Your task to perform on an android device: Open maps Image 0: 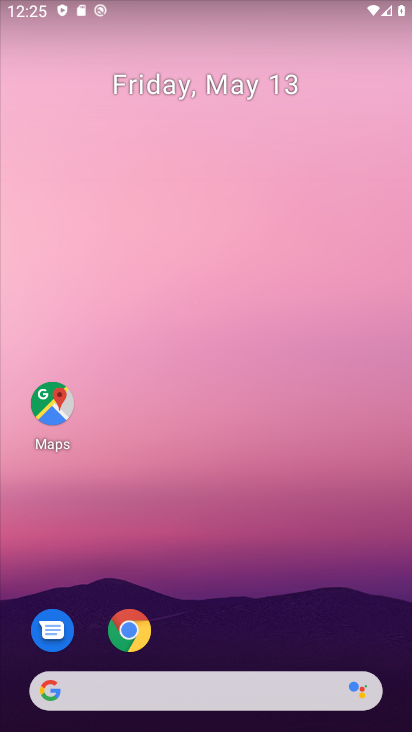
Step 0: drag from (244, 725) to (287, 109)
Your task to perform on an android device: Open maps Image 1: 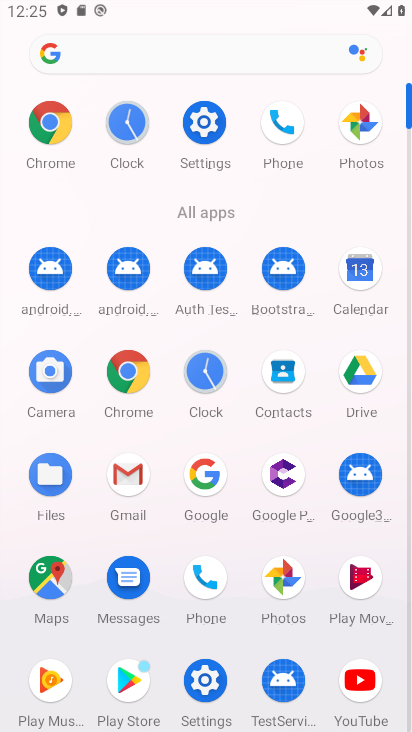
Step 1: click (56, 589)
Your task to perform on an android device: Open maps Image 2: 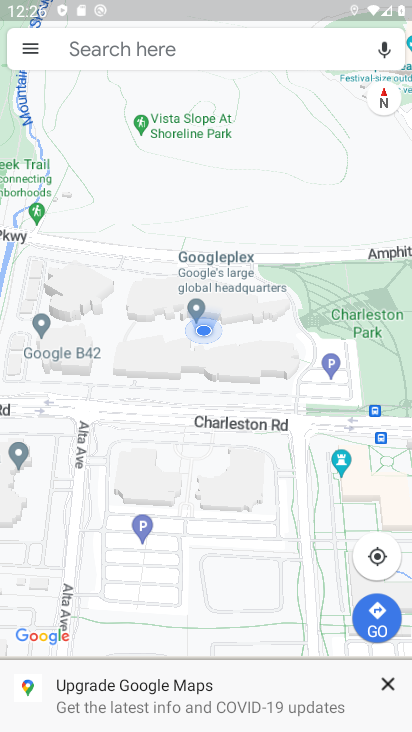
Step 2: task complete